Your task to perform on an android device: Go to CNN.com Image 0: 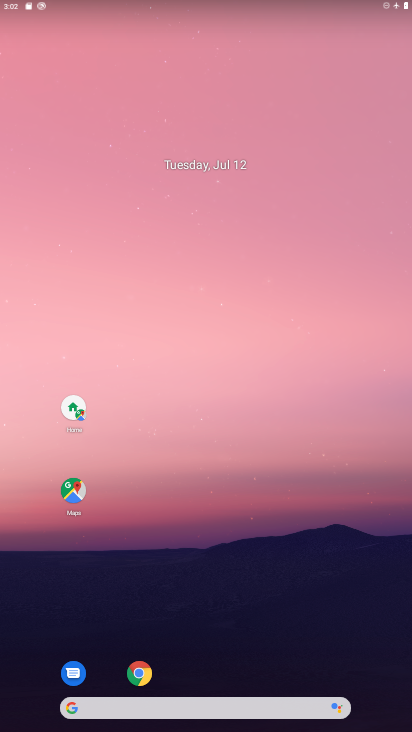
Step 0: drag from (262, 658) to (262, 364)
Your task to perform on an android device: Go to CNN.com Image 1: 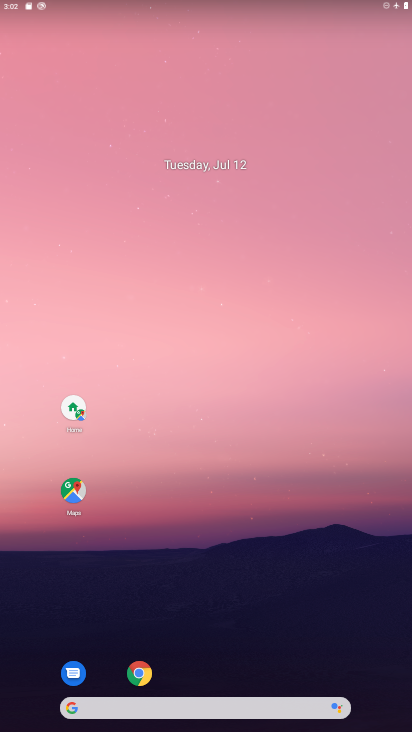
Step 1: drag from (204, 544) to (196, 212)
Your task to perform on an android device: Go to CNN.com Image 2: 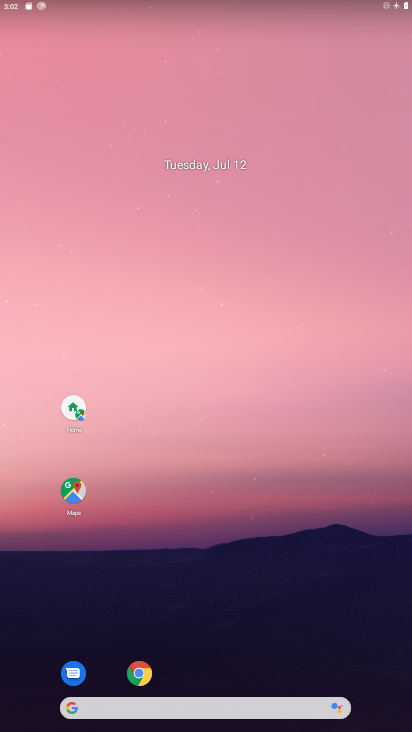
Step 2: drag from (181, 660) to (185, 311)
Your task to perform on an android device: Go to CNN.com Image 3: 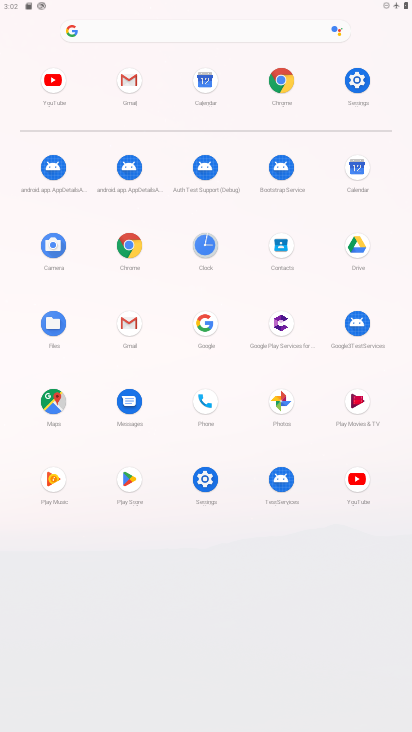
Step 3: click (272, 85)
Your task to perform on an android device: Go to CNN.com Image 4: 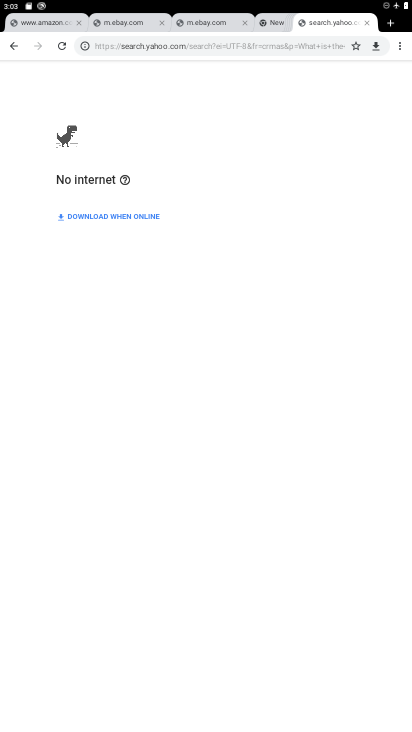
Step 4: click (398, 46)
Your task to perform on an android device: Go to CNN.com Image 5: 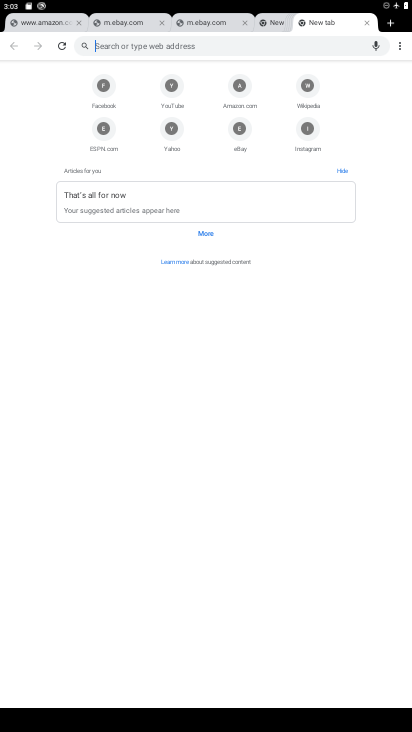
Step 5: click (194, 44)
Your task to perform on an android device: Go to CNN.com Image 6: 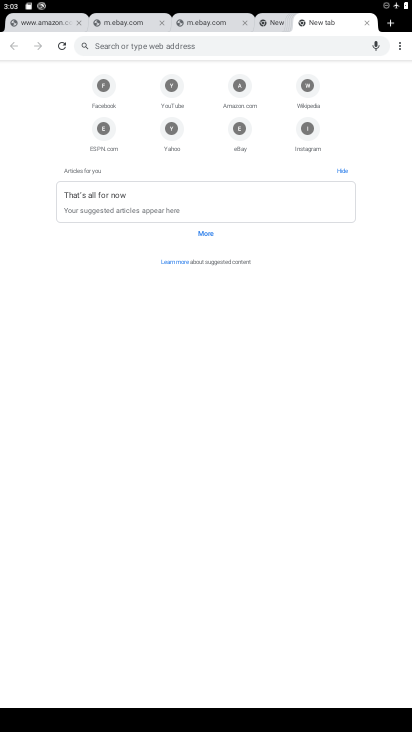
Step 6: type "CNN.com "
Your task to perform on an android device: Go to CNN.com Image 7: 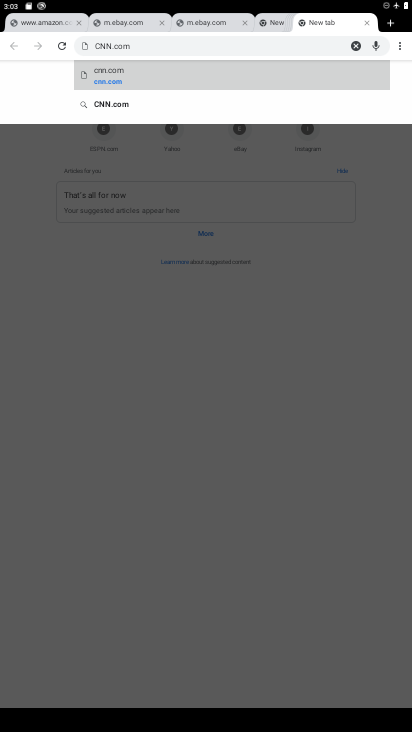
Step 7: click (157, 78)
Your task to perform on an android device: Go to CNN.com Image 8: 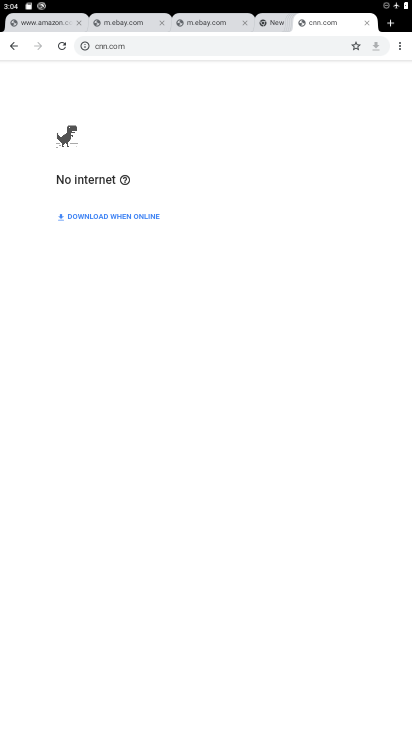
Step 8: task complete